Your task to perform on an android device: turn on data saver in the chrome app Image 0: 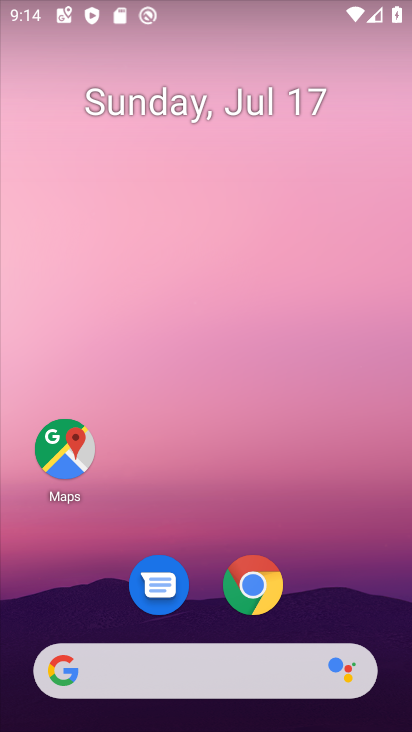
Step 0: click (265, 582)
Your task to perform on an android device: turn on data saver in the chrome app Image 1: 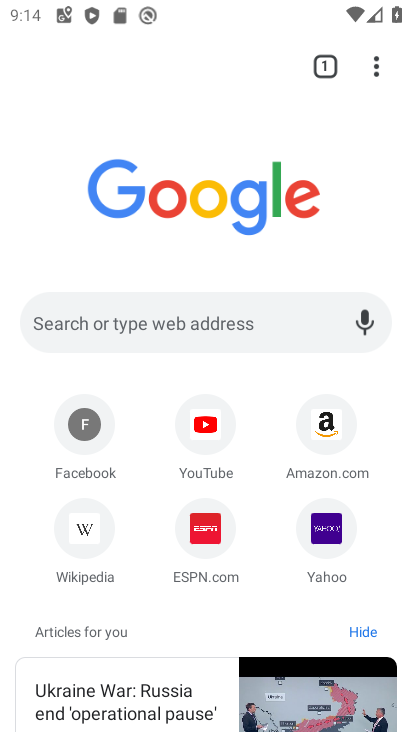
Step 1: click (375, 60)
Your task to perform on an android device: turn on data saver in the chrome app Image 2: 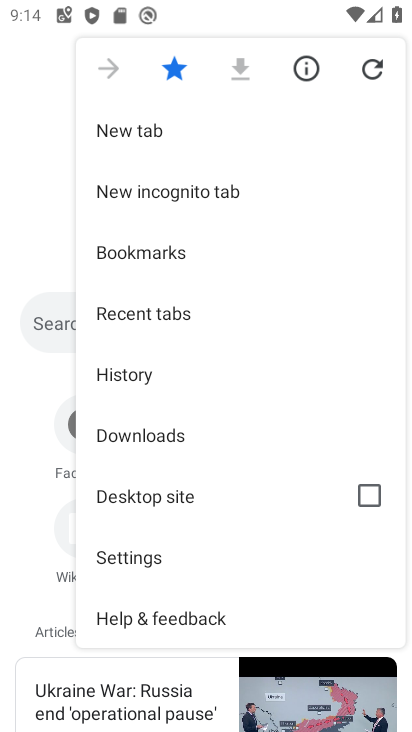
Step 2: click (147, 552)
Your task to perform on an android device: turn on data saver in the chrome app Image 3: 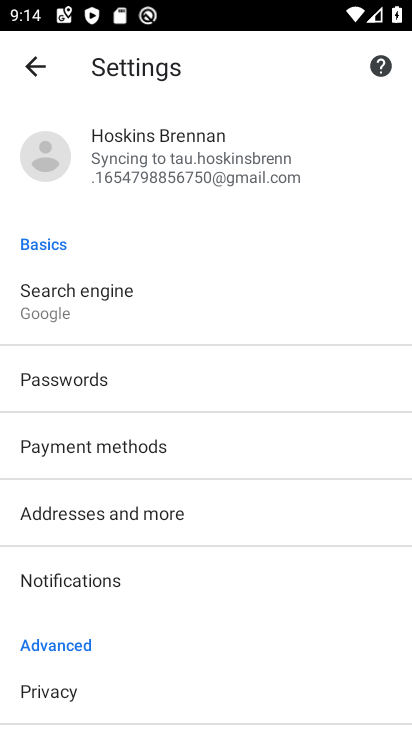
Step 3: drag from (191, 611) to (179, 190)
Your task to perform on an android device: turn on data saver in the chrome app Image 4: 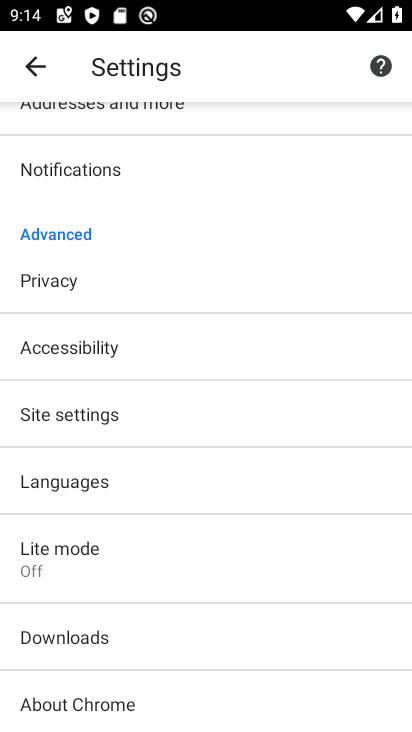
Step 4: click (185, 583)
Your task to perform on an android device: turn on data saver in the chrome app Image 5: 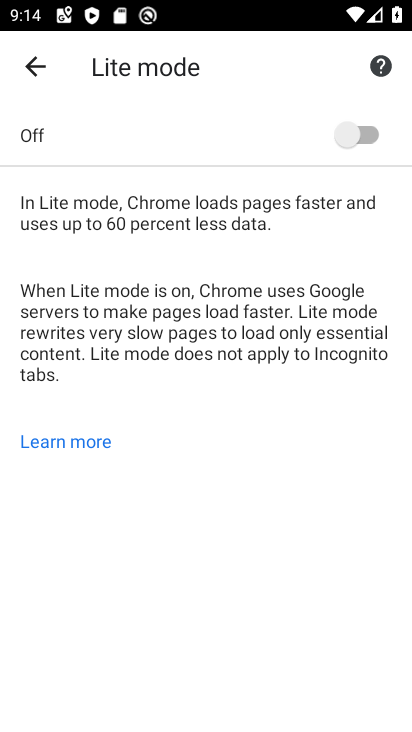
Step 5: click (353, 129)
Your task to perform on an android device: turn on data saver in the chrome app Image 6: 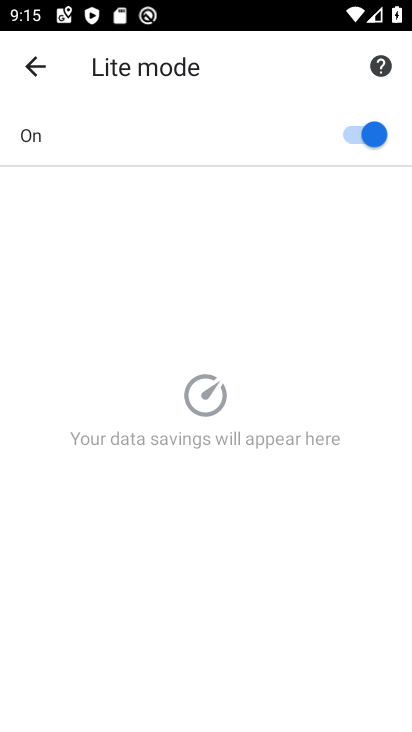
Step 6: task complete